Your task to perform on an android device: turn notification dots off Image 0: 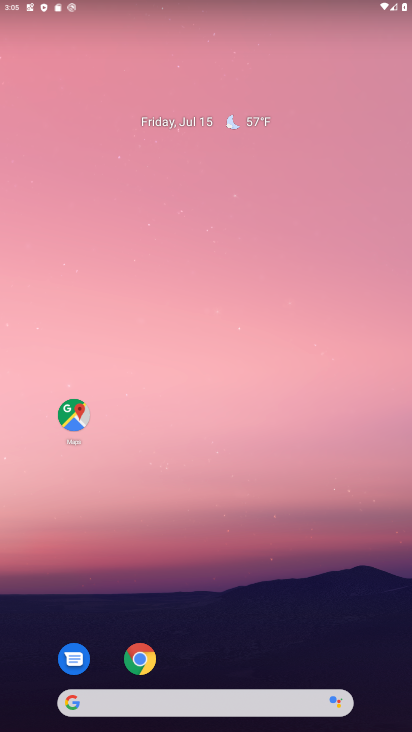
Step 0: drag from (217, 630) to (313, 15)
Your task to perform on an android device: turn notification dots off Image 1: 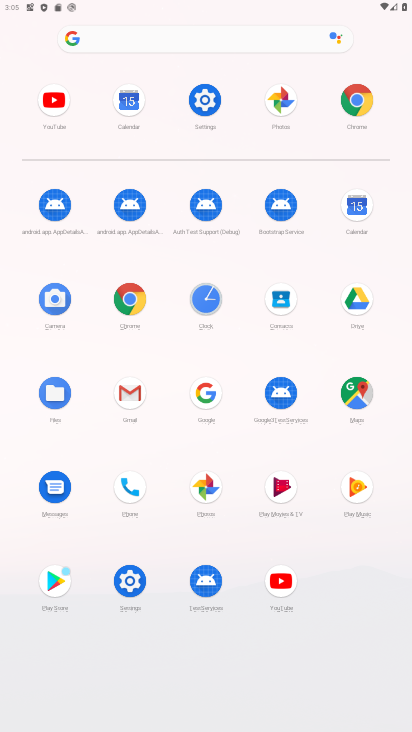
Step 1: click (140, 593)
Your task to perform on an android device: turn notification dots off Image 2: 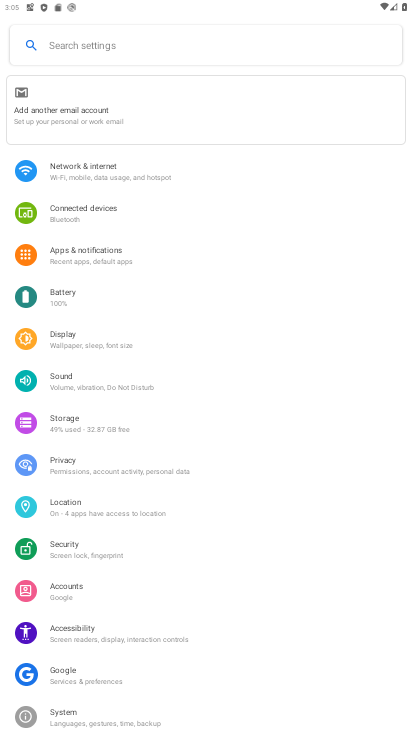
Step 2: click (105, 267)
Your task to perform on an android device: turn notification dots off Image 3: 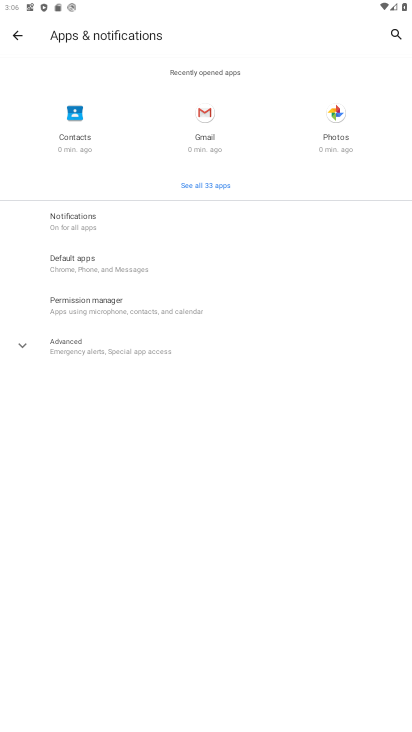
Step 3: click (89, 217)
Your task to perform on an android device: turn notification dots off Image 4: 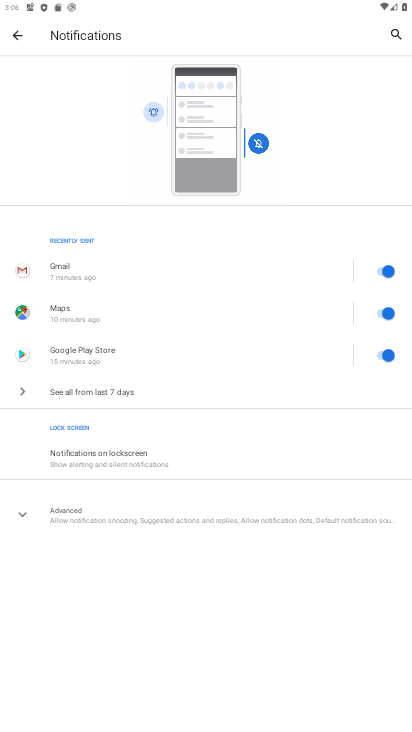
Step 4: click (117, 523)
Your task to perform on an android device: turn notification dots off Image 5: 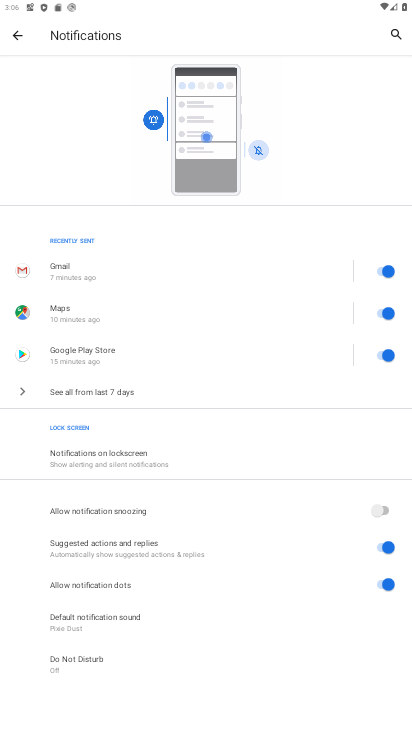
Step 5: click (202, 588)
Your task to perform on an android device: turn notification dots off Image 6: 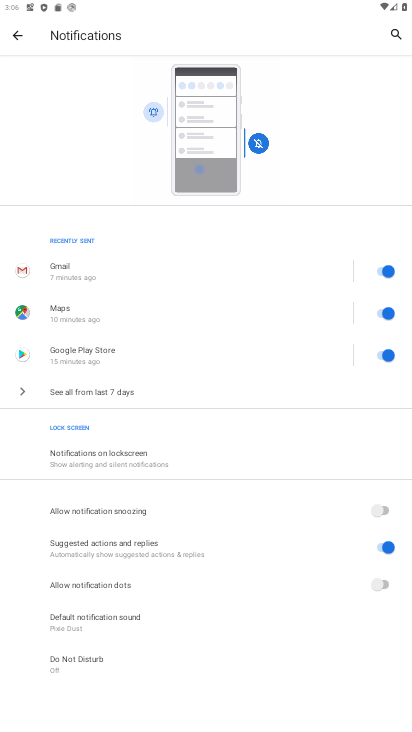
Step 6: task complete